Your task to perform on an android device: turn on sleep mode Image 0: 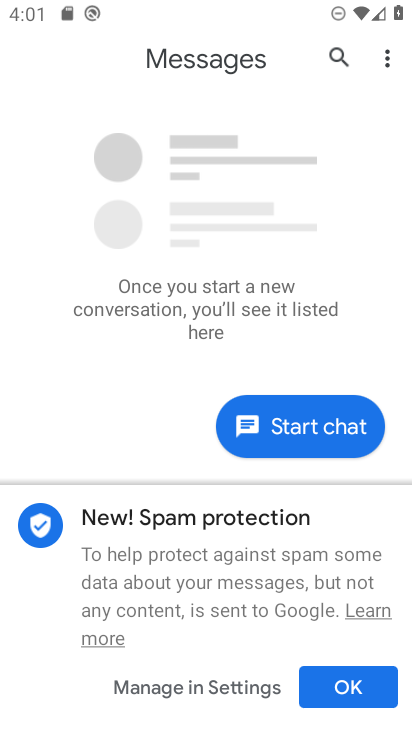
Step 0: press back button
Your task to perform on an android device: turn on sleep mode Image 1: 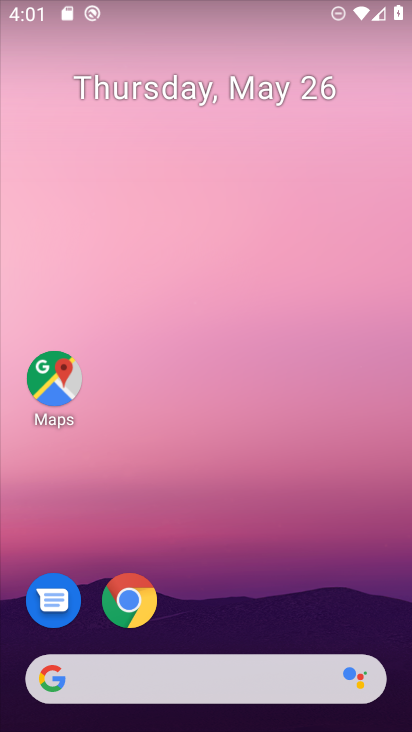
Step 1: drag from (230, 617) to (174, 83)
Your task to perform on an android device: turn on sleep mode Image 2: 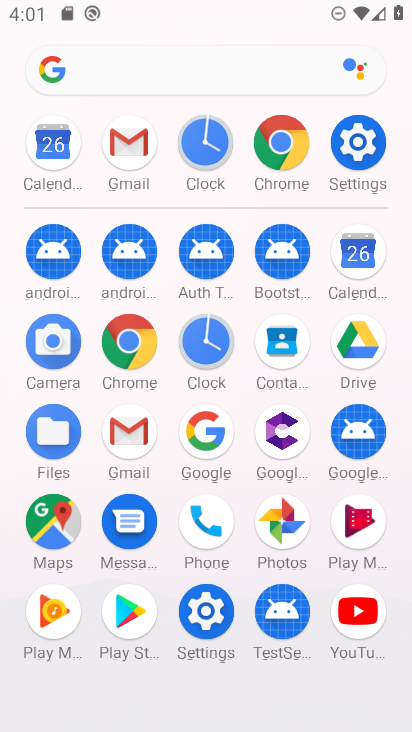
Step 2: drag from (7, 496) to (24, 289)
Your task to perform on an android device: turn on sleep mode Image 3: 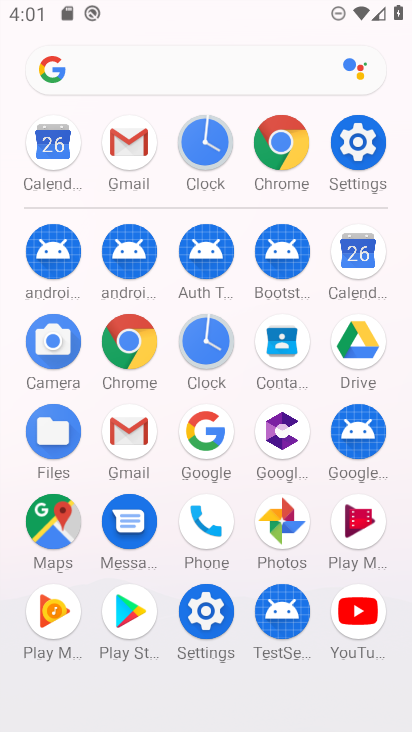
Step 3: click (201, 609)
Your task to perform on an android device: turn on sleep mode Image 4: 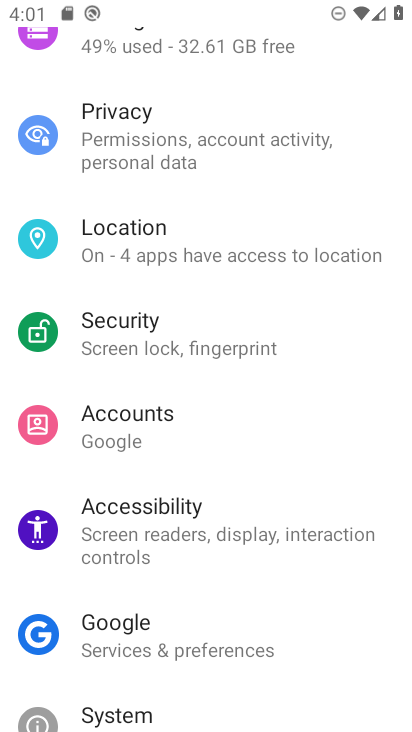
Step 4: drag from (219, 211) to (219, 655)
Your task to perform on an android device: turn on sleep mode Image 5: 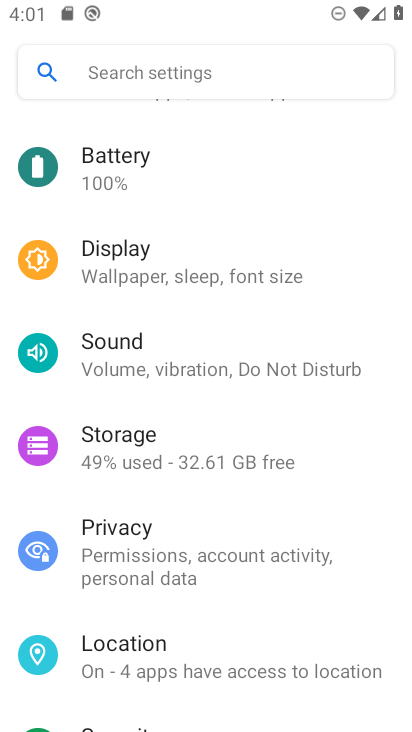
Step 5: drag from (219, 657) to (219, 691)
Your task to perform on an android device: turn on sleep mode Image 6: 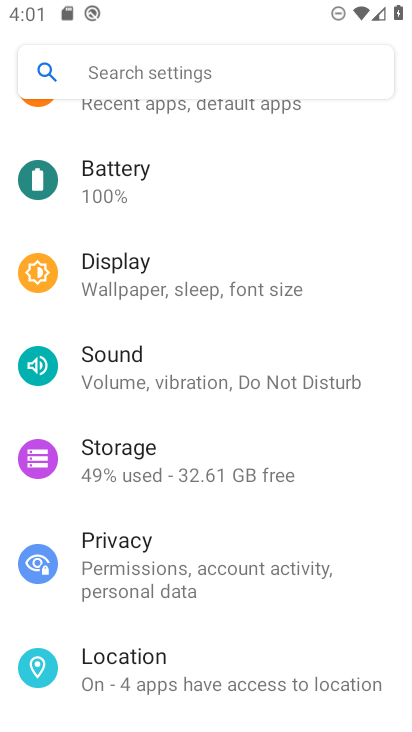
Step 6: drag from (254, 220) to (282, 647)
Your task to perform on an android device: turn on sleep mode Image 7: 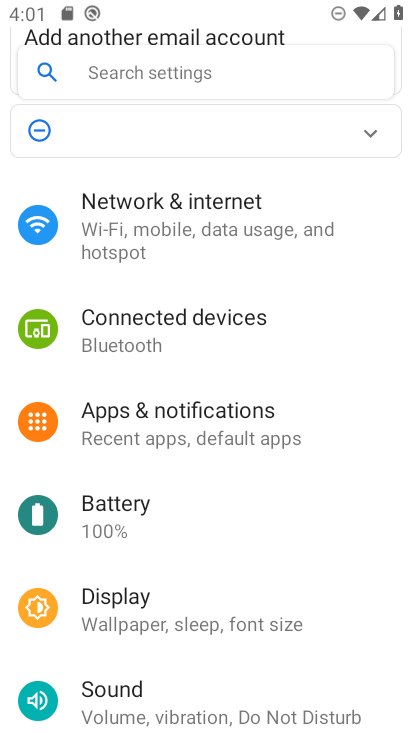
Step 7: click (187, 234)
Your task to perform on an android device: turn on sleep mode Image 8: 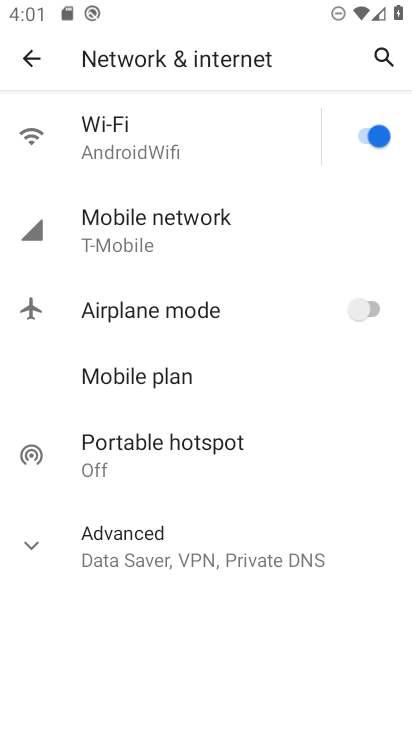
Step 8: click (35, 548)
Your task to perform on an android device: turn on sleep mode Image 9: 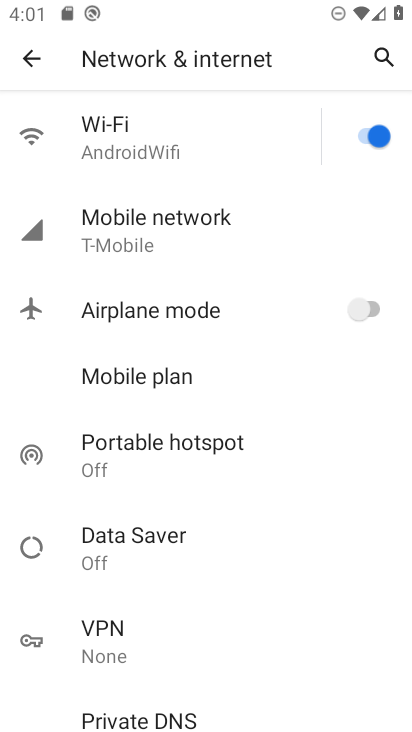
Step 9: task complete